Your task to perform on an android device: Open the stopwatch Image 0: 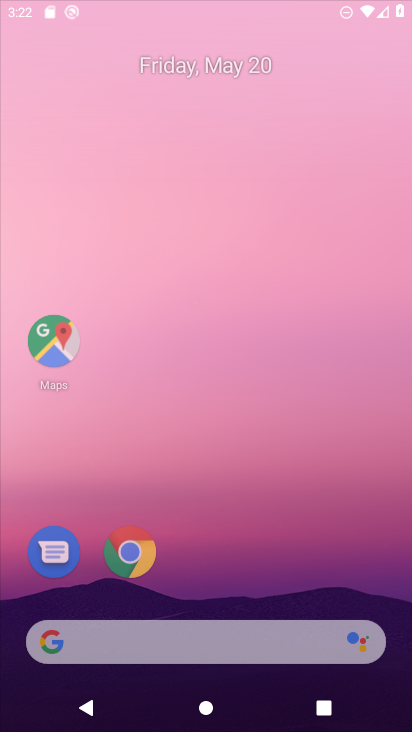
Step 0: drag from (245, 712) to (240, 218)
Your task to perform on an android device: Open the stopwatch Image 1: 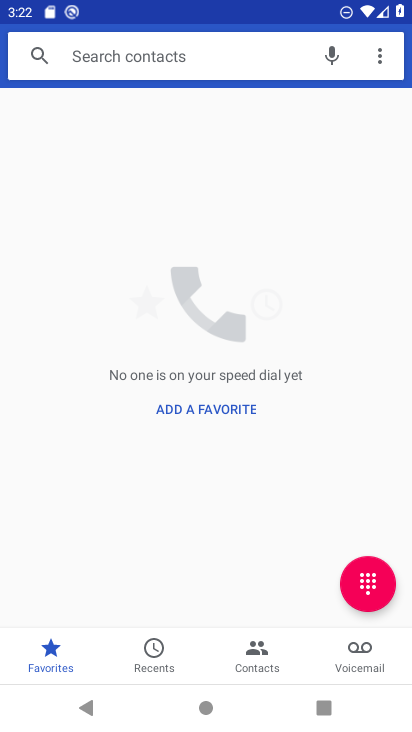
Step 1: press home button
Your task to perform on an android device: Open the stopwatch Image 2: 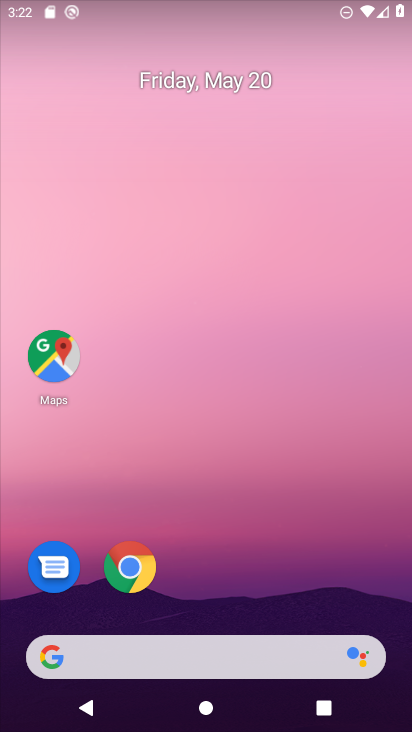
Step 2: drag from (237, 722) to (222, 188)
Your task to perform on an android device: Open the stopwatch Image 3: 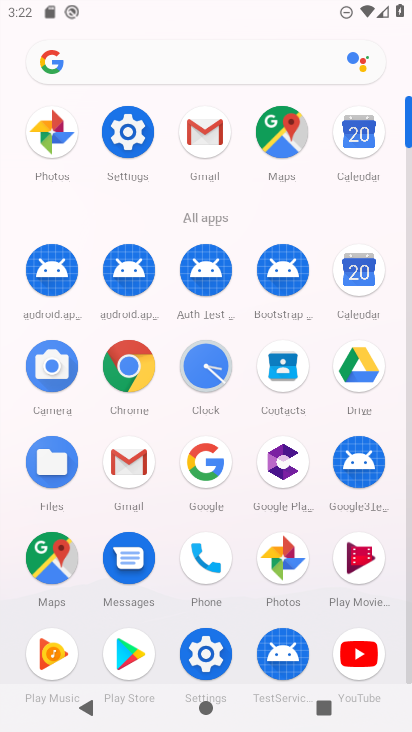
Step 3: click (208, 370)
Your task to perform on an android device: Open the stopwatch Image 4: 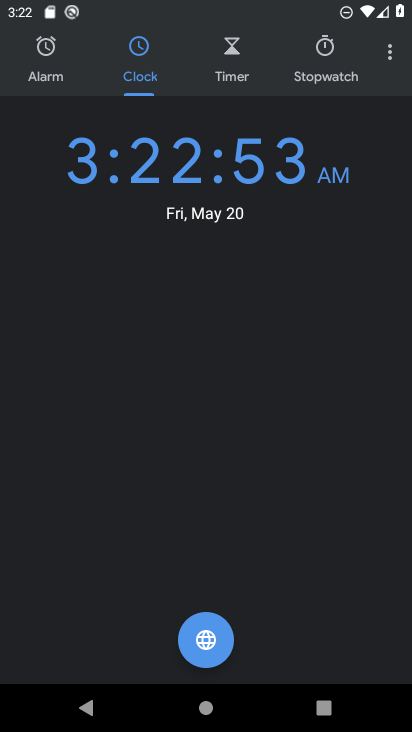
Step 4: click (324, 64)
Your task to perform on an android device: Open the stopwatch Image 5: 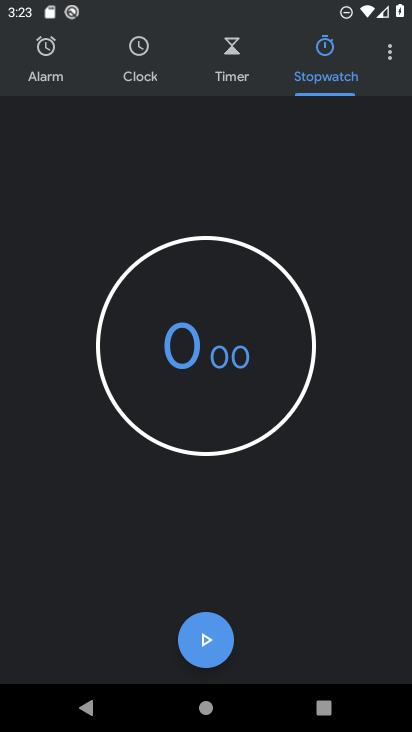
Step 5: task complete